Your task to perform on an android device: change the clock style Image 0: 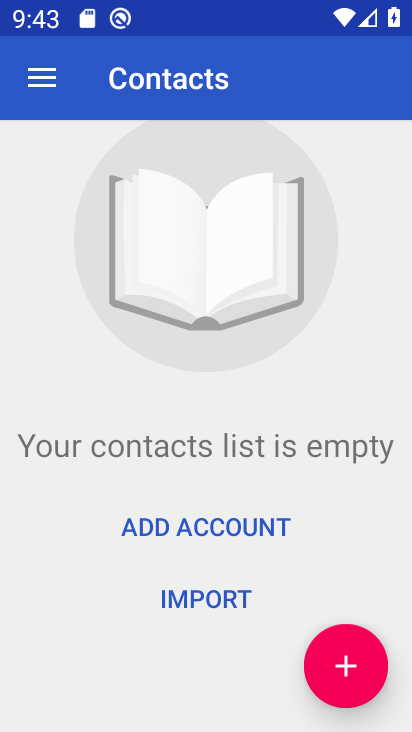
Step 0: press home button
Your task to perform on an android device: change the clock style Image 1: 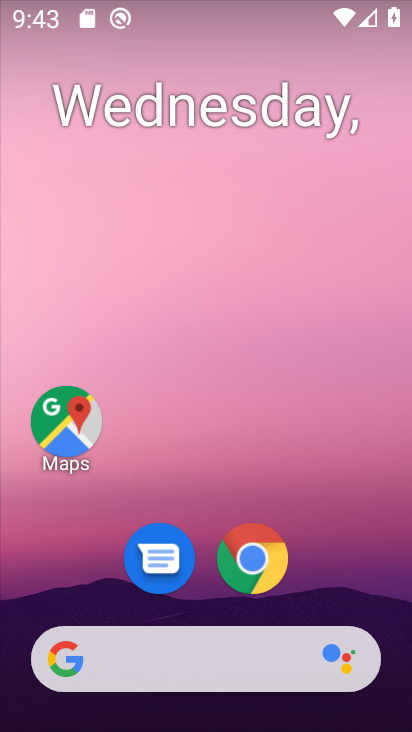
Step 1: drag from (353, 550) to (397, 127)
Your task to perform on an android device: change the clock style Image 2: 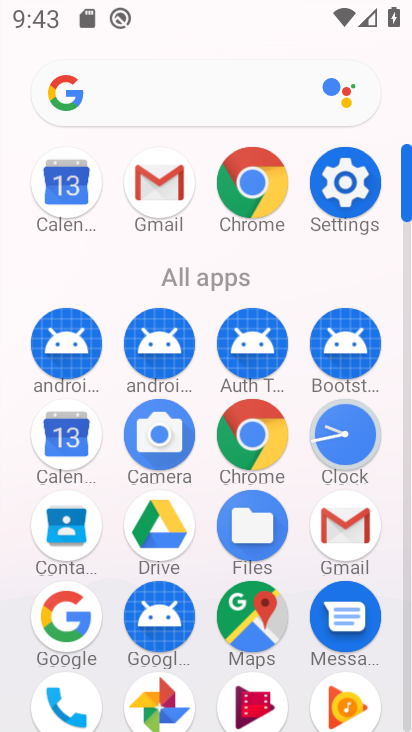
Step 2: click (358, 431)
Your task to perform on an android device: change the clock style Image 3: 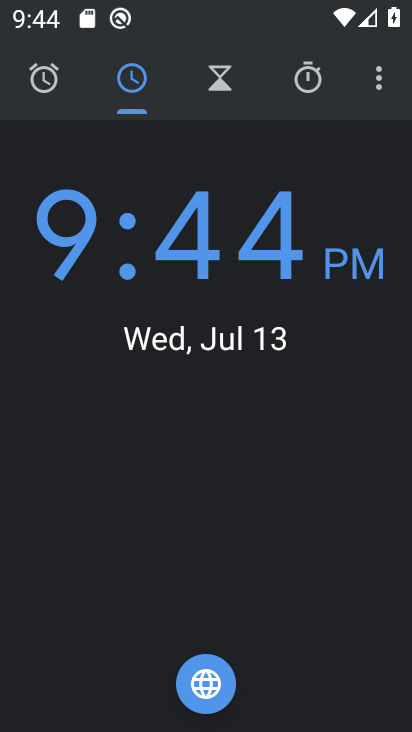
Step 3: click (381, 81)
Your task to perform on an android device: change the clock style Image 4: 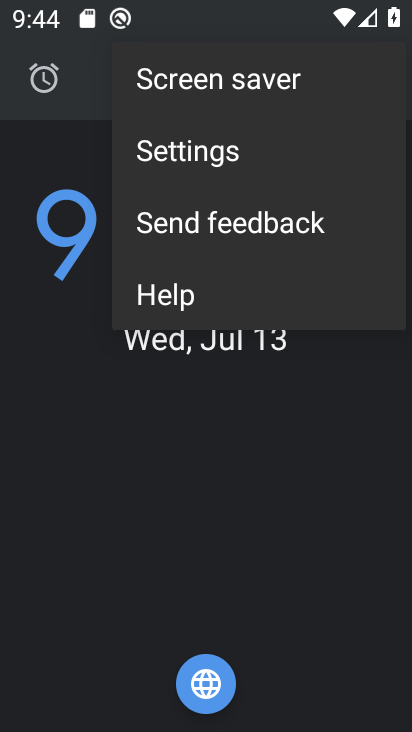
Step 4: click (266, 147)
Your task to perform on an android device: change the clock style Image 5: 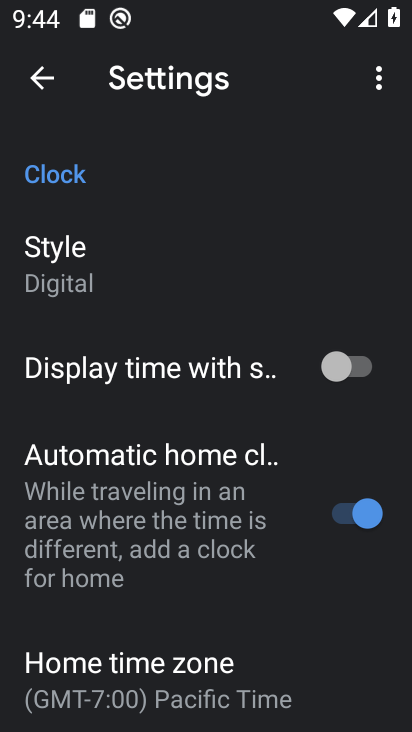
Step 5: drag from (284, 571) to (298, 456)
Your task to perform on an android device: change the clock style Image 6: 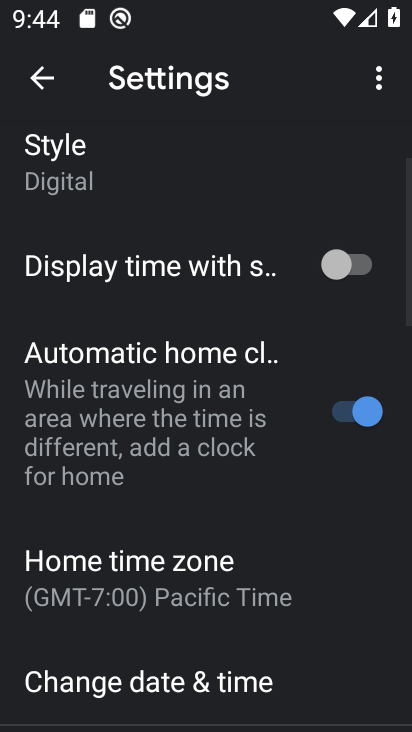
Step 6: drag from (303, 544) to (309, 439)
Your task to perform on an android device: change the clock style Image 7: 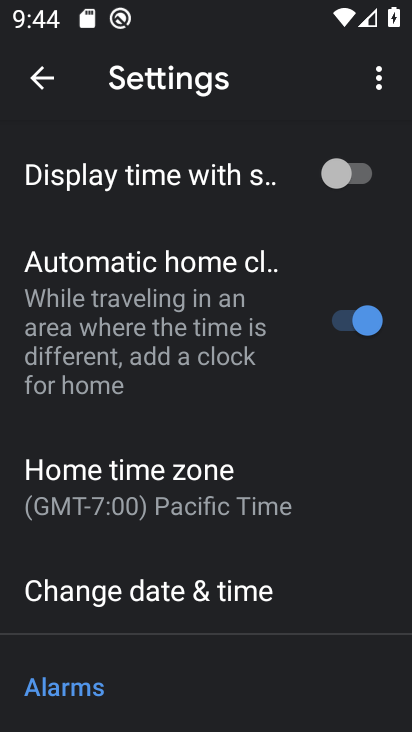
Step 7: drag from (313, 530) to (320, 366)
Your task to perform on an android device: change the clock style Image 8: 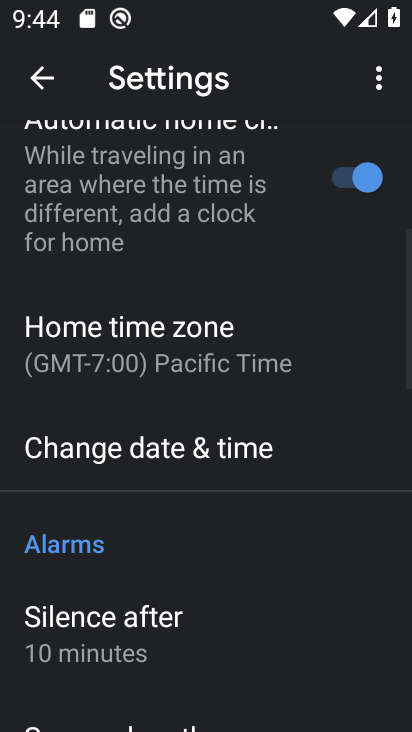
Step 8: drag from (289, 496) to (305, 330)
Your task to perform on an android device: change the clock style Image 9: 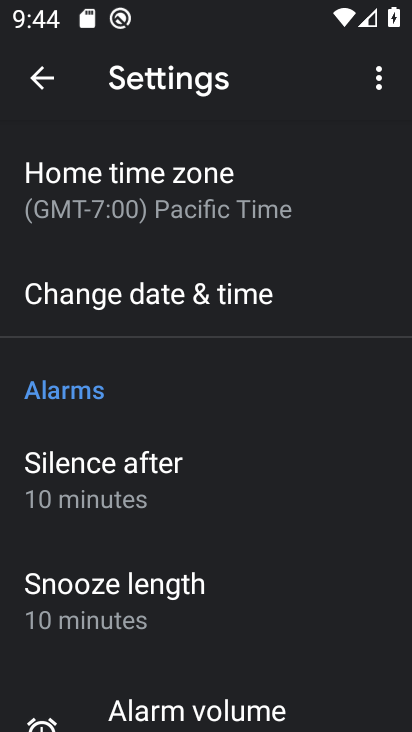
Step 9: drag from (305, 477) to (328, 247)
Your task to perform on an android device: change the clock style Image 10: 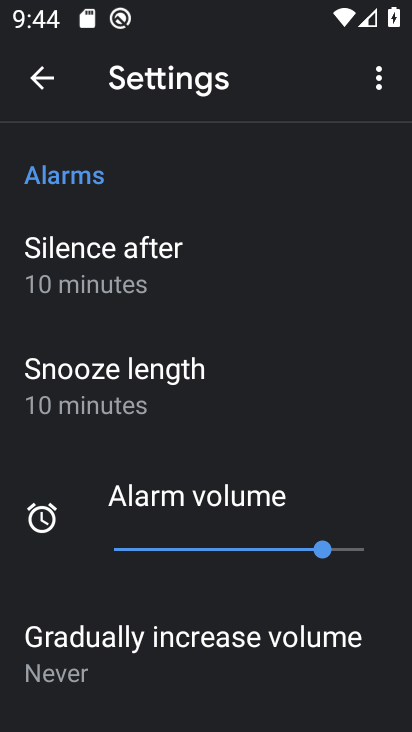
Step 10: drag from (322, 401) to (321, 193)
Your task to perform on an android device: change the clock style Image 11: 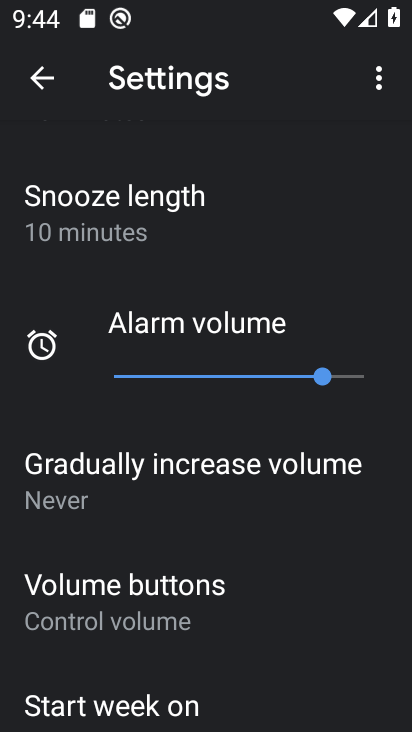
Step 11: drag from (328, 203) to (334, 343)
Your task to perform on an android device: change the clock style Image 12: 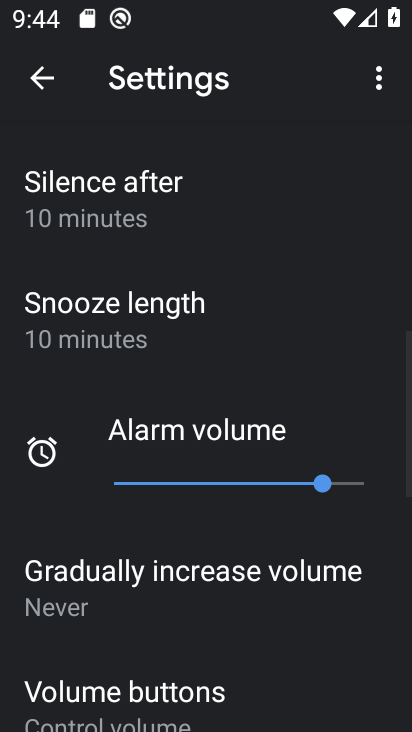
Step 12: drag from (331, 247) to (321, 389)
Your task to perform on an android device: change the clock style Image 13: 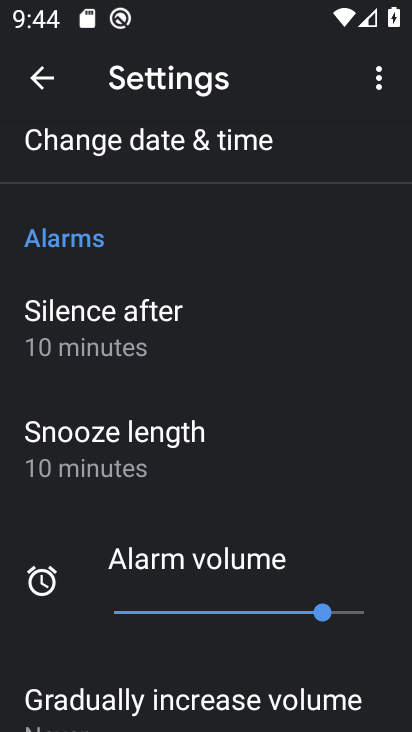
Step 13: drag from (320, 233) to (322, 355)
Your task to perform on an android device: change the clock style Image 14: 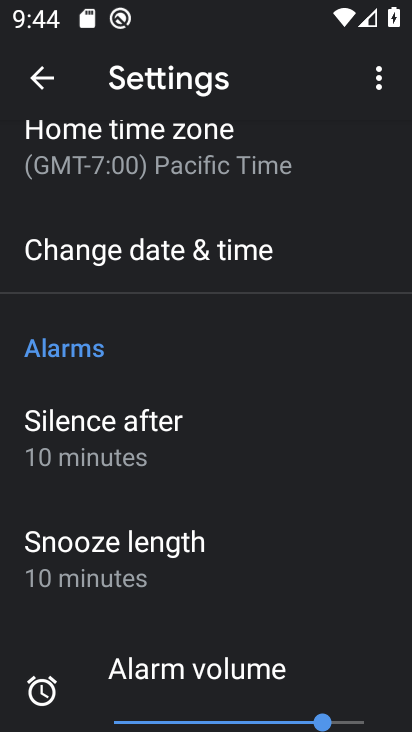
Step 14: drag from (309, 219) to (305, 407)
Your task to perform on an android device: change the clock style Image 15: 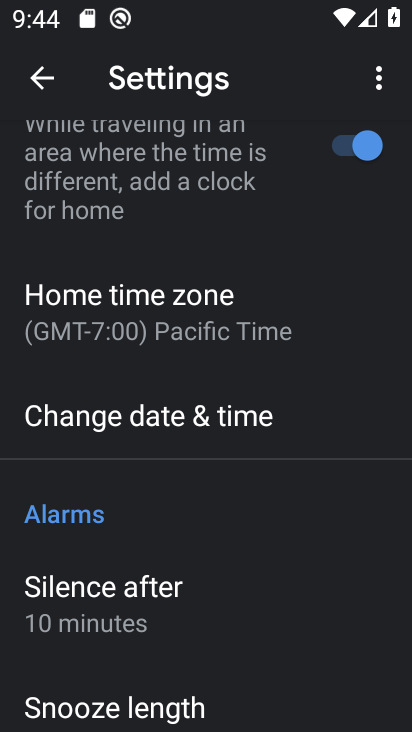
Step 15: drag from (307, 220) to (305, 447)
Your task to perform on an android device: change the clock style Image 16: 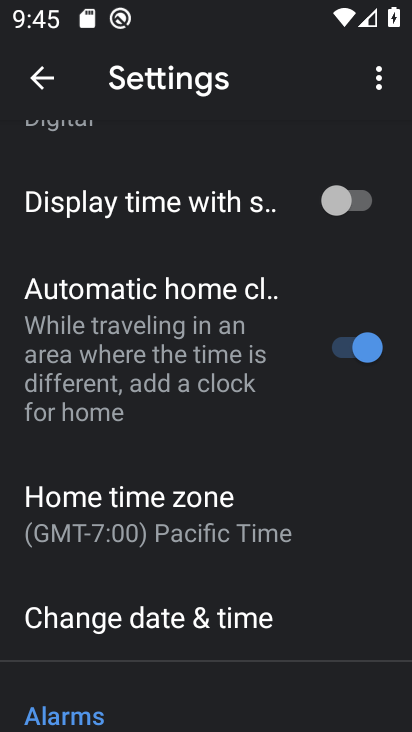
Step 16: drag from (292, 331) to (306, 462)
Your task to perform on an android device: change the clock style Image 17: 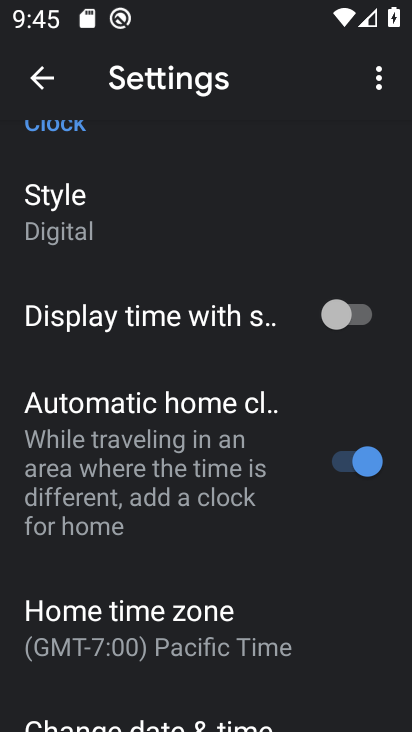
Step 17: click (64, 225)
Your task to perform on an android device: change the clock style Image 18: 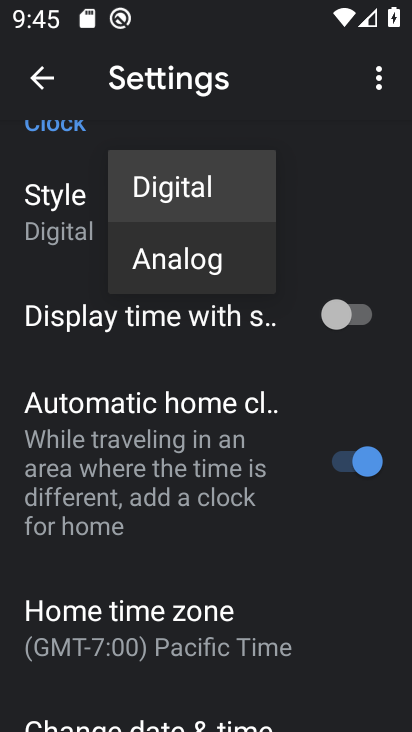
Step 18: click (176, 267)
Your task to perform on an android device: change the clock style Image 19: 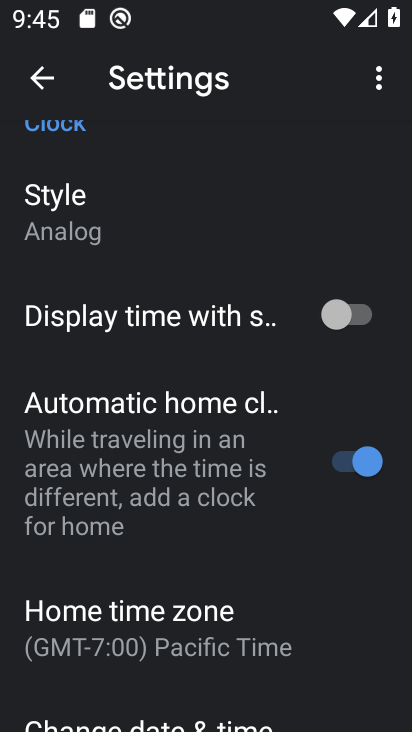
Step 19: task complete